Your task to perform on an android device: change your default location settings in chrome Image 0: 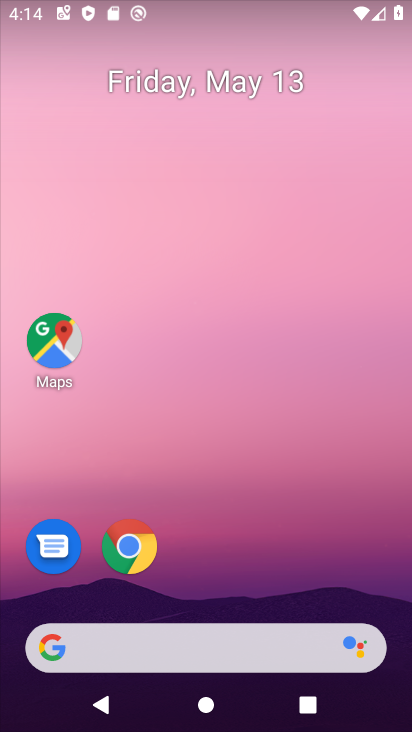
Step 0: click (140, 549)
Your task to perform on an android device: change your default location settings in chrome Image 1: 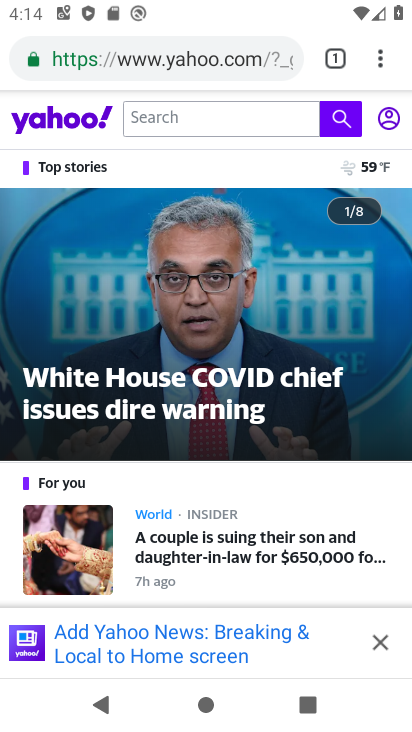
Step 1: click (389, 59)
Your task to perform on an android device: change your default location settings in chrome Image 2: 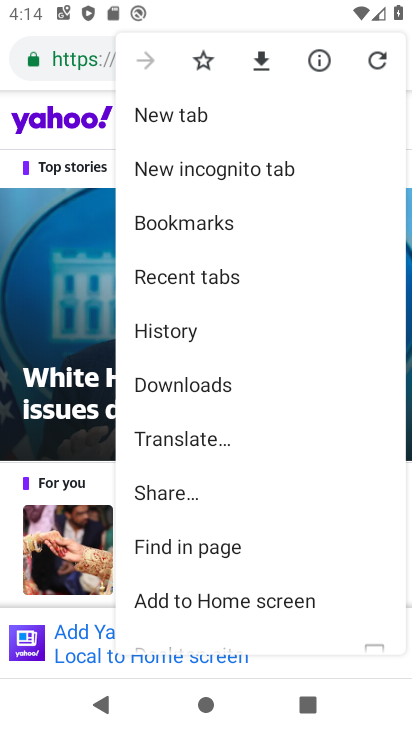
Step 2: drag from (216, 517) to (269, 322)
Your task to perform on an android device: change your default location settings in chrome Image 3: 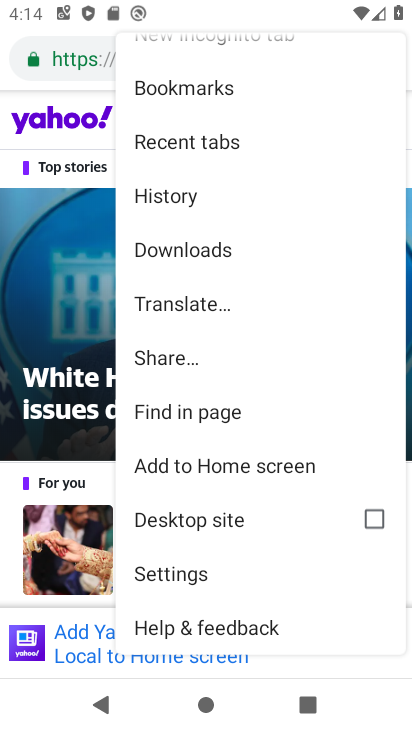
Step 3: drag from (217, 576) to (302, 71)
Your task to perform on an android device: change your default location settings in chrome Image 4: 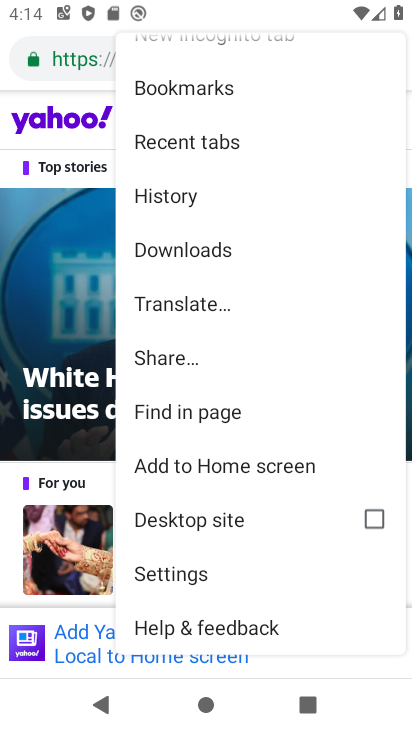
Step 4: click (190, 575)
Your task to perform on an android device: change your default location settings in chrome Image 5: 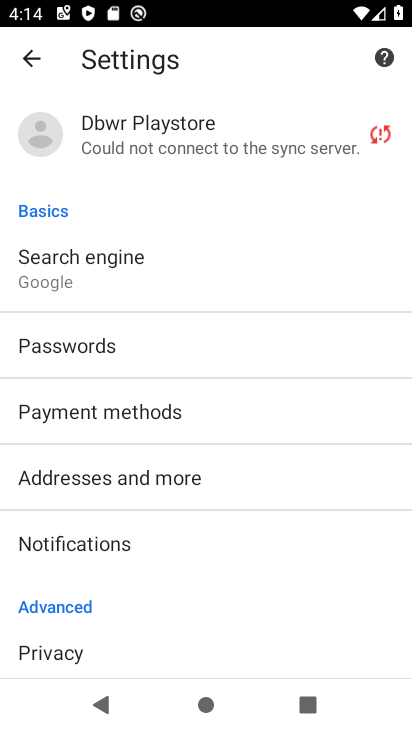
Step 5: drag from (158, 565) to (193, 216)
Your task to perform on an android device: change your default location settings in chrome Image 6: 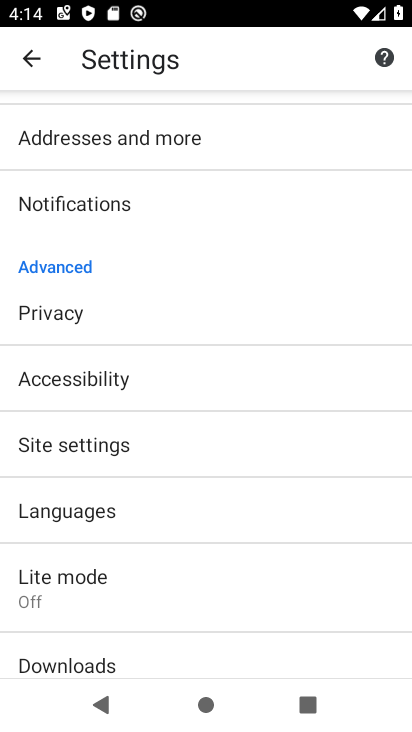
Step 6: click (86, 443)
Your task to perform on an android device: change your default location settings in chrome Image 7: 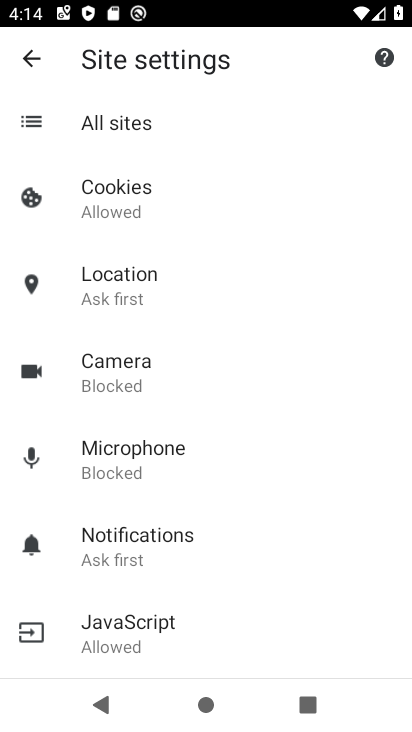
Step 7: click (126, 303)
Your task to perform on an android device: change your default location settings in chrome Image 8: 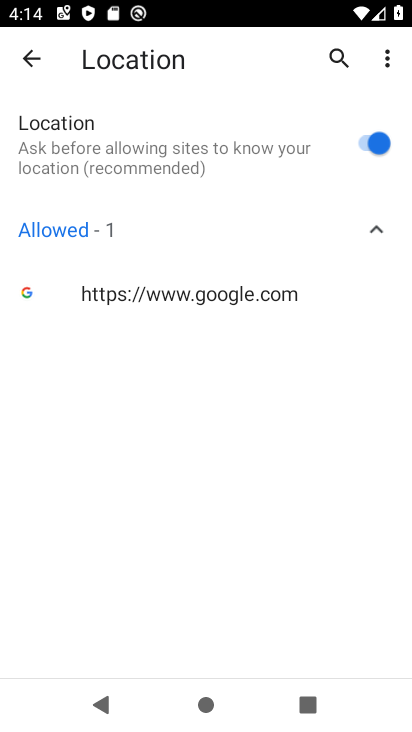
Step 8: click (356, 132)
Your task to perform on an android device: change your default location settings in chrome Image 9: 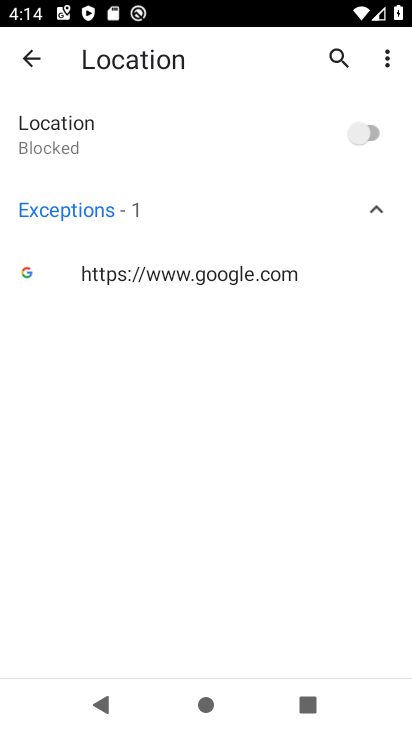
Step 9: task complete